Your task to perform on an android device: Open Reddit.com Image 0: 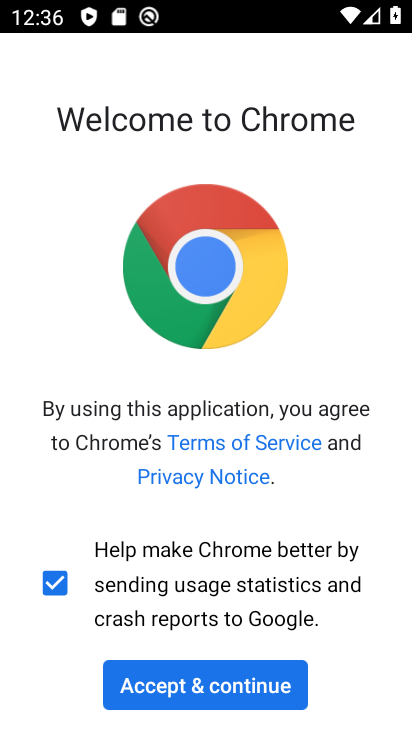
Step 0: task complete